Your task to perform on an android device: Open Google Chrome and open the bookmarks view Image 0: 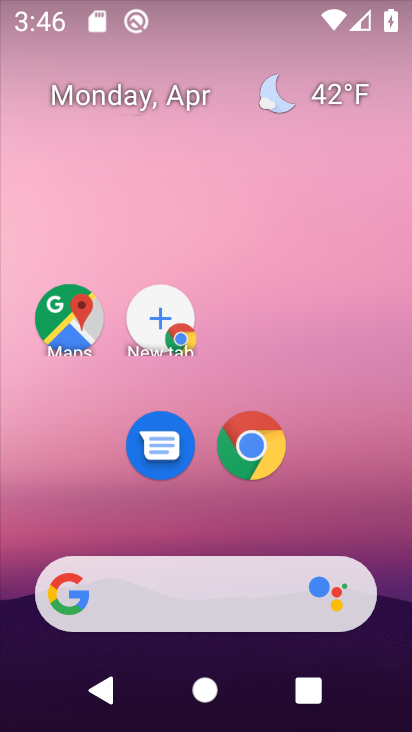
Step 0: click (251, 438)
Your task to perform on an android device: Open Google Chrome and open the bookmarks view Image 1: 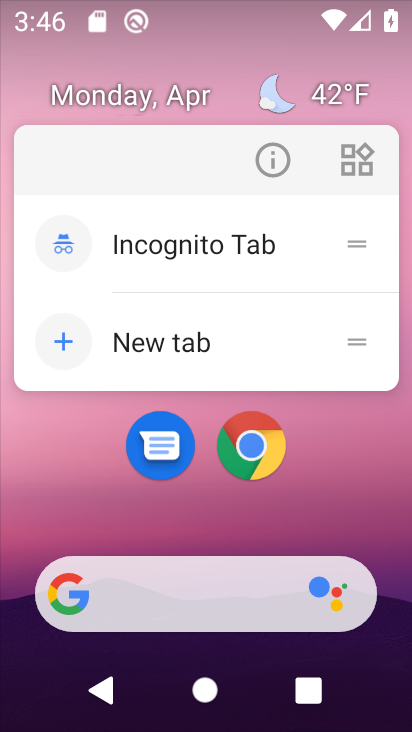
Step 1: click (253, 440)
Your task to perform on an android device: Open Google Chrome and open the bookmarks view Image 2: 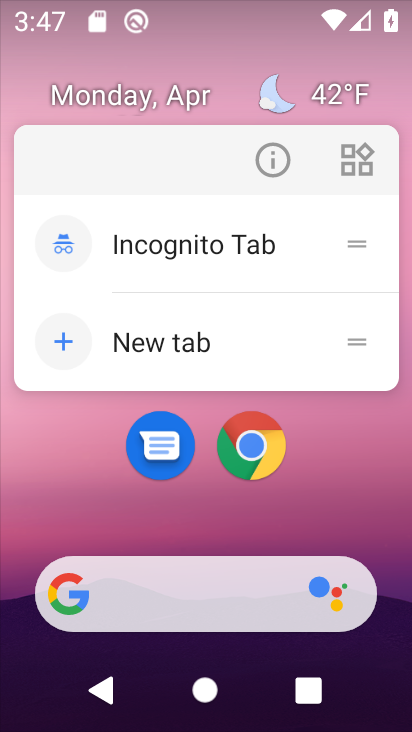
Step 2: click (253, 443)
Your task to perform on an android device: Open Google Chrome and open the bookmarks view Image 3: 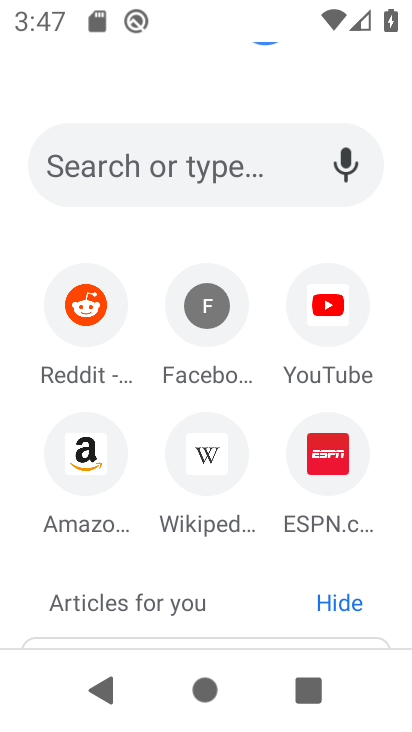
Step 3: drag from (238, 107) to (275, 571)
Your task to perform on an android device: Open Google Chrome and open the bookmarks view Image 4: 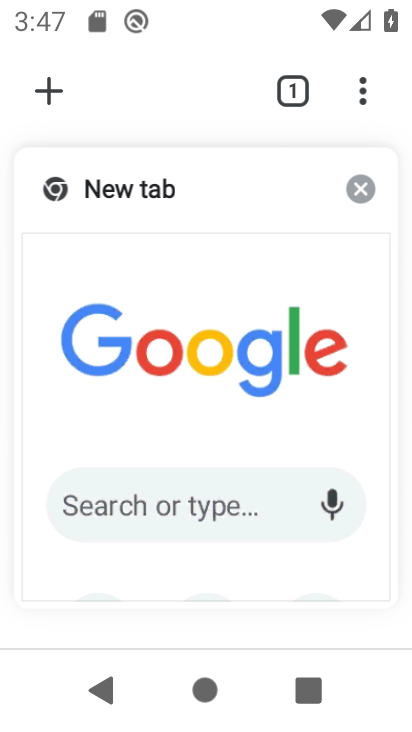
Step 4: click (283, 237)
Your task to perform on an android device: Open Google Chrome and open the bookmarks view Image 5: 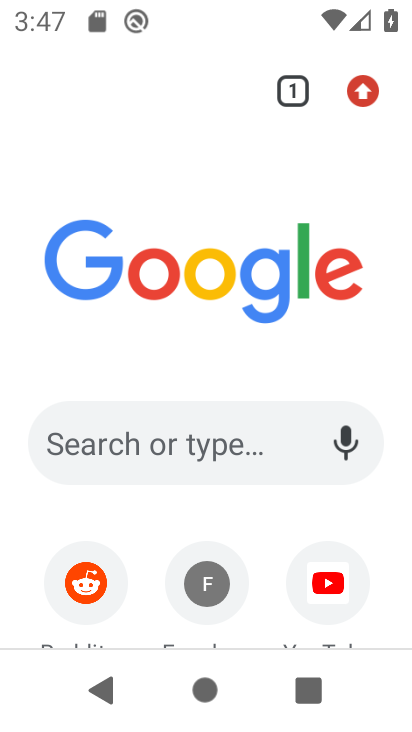
Step 5: click (361, 90)
Your task to perform on an android device: Open Google Chrome and open the bookmarks view Image 6: 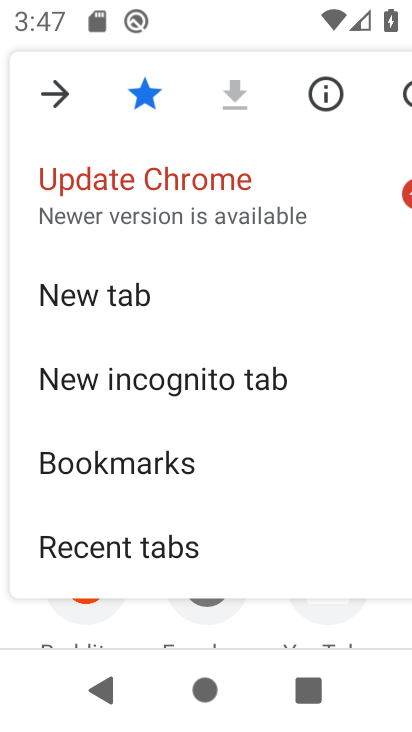
Step 6: click (215, 460)
Your task to perform on an android device: Open Google Chrome and open the bookmarks view Image 7: 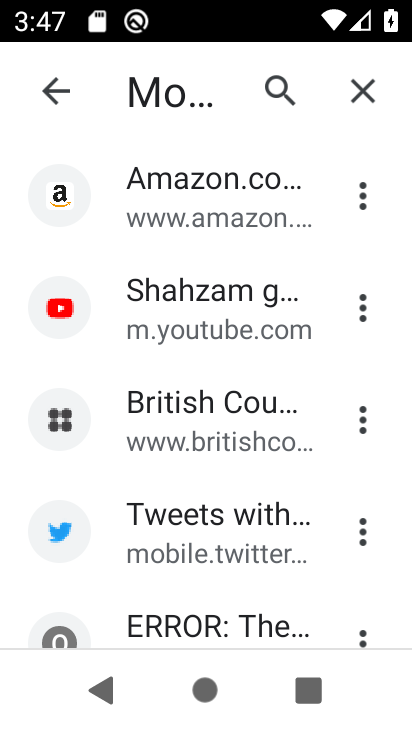
Step 7: click (184, 316)
Your task to perform on an android device: Open Google Chrome and open the bookmarks view Image 8: 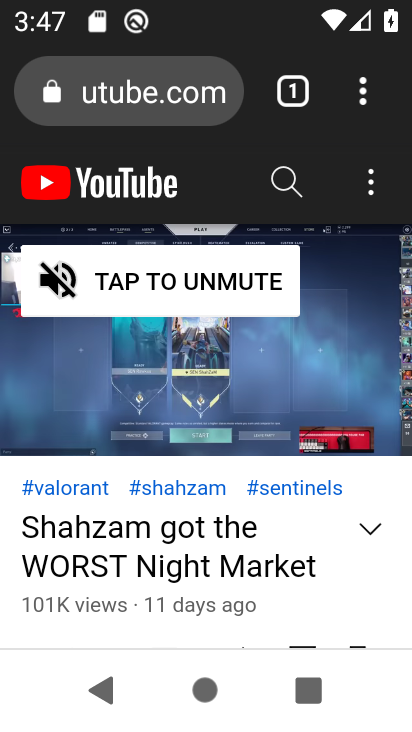
Step 8: task complete